Your task to perform on an android device: Go to Google maps Image 0: 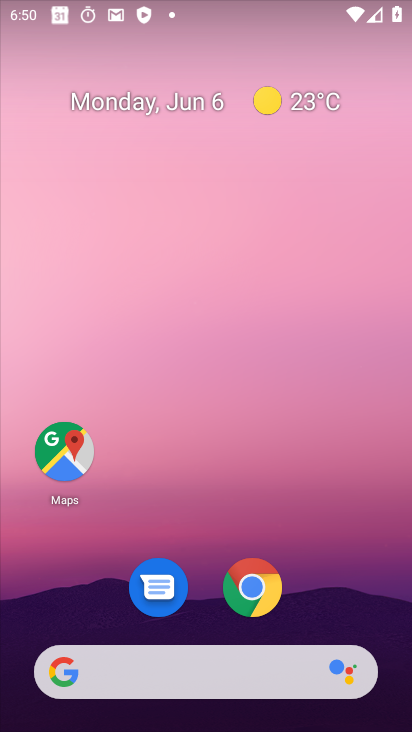
Step 0: drag from (375, 628) to (174, 2)
Your task to perform on an android device: Go to Google maps Image 1: 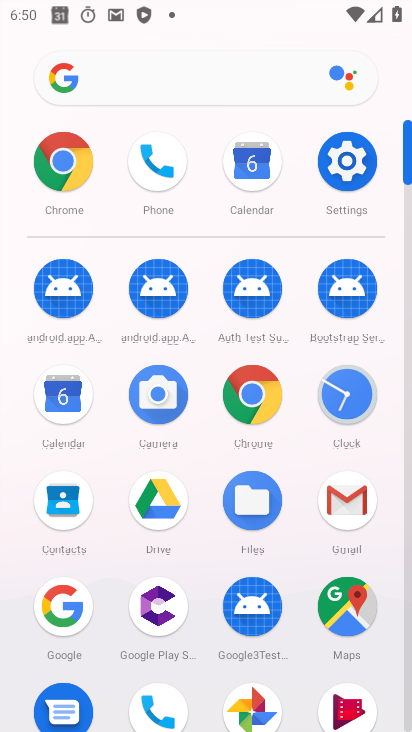
Step 1: click (361, 614)
Your task to perform on an android device: Go to Google maps Image 2: 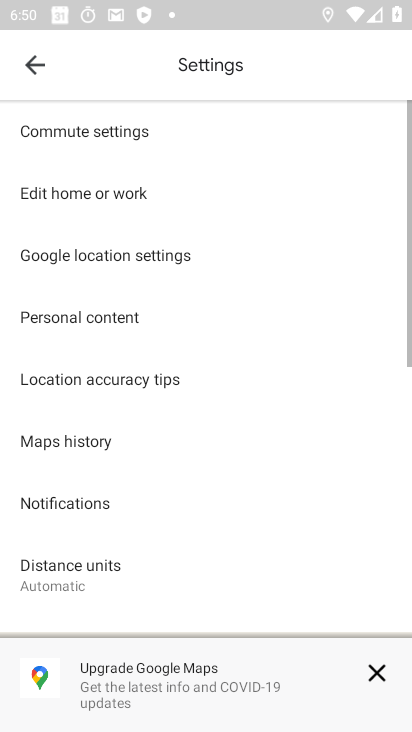
Step 2: task complete